Your task to perform on an android device: Open Yahoo.com Image 0: 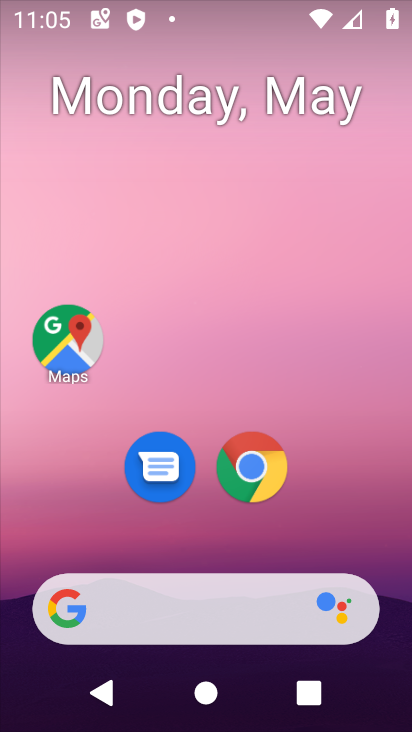
Step 0: click (253, 458)
Your task to perform on an android device: Open Yahoo.com Image 1: 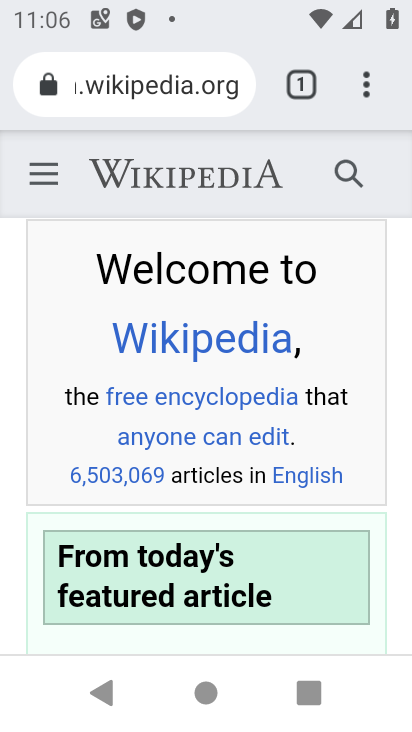
Step 1: click (183, 86)
Your task to perform on an android device: Open Yahoo.com Image 2: 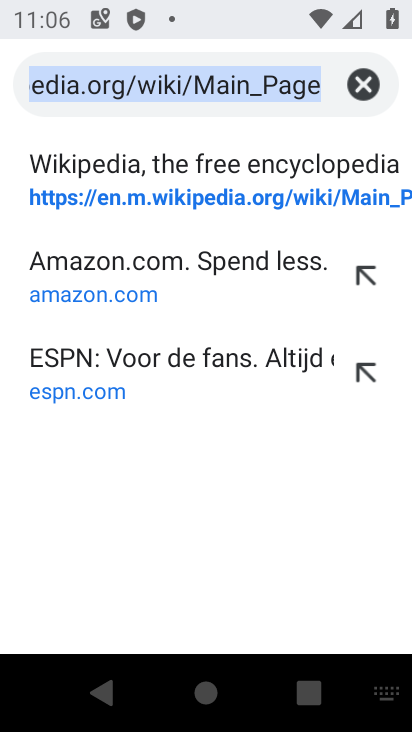
Step 2: type "yahoo.com"
Your task to perform on an android device: Open Yahoo.com Image 3: 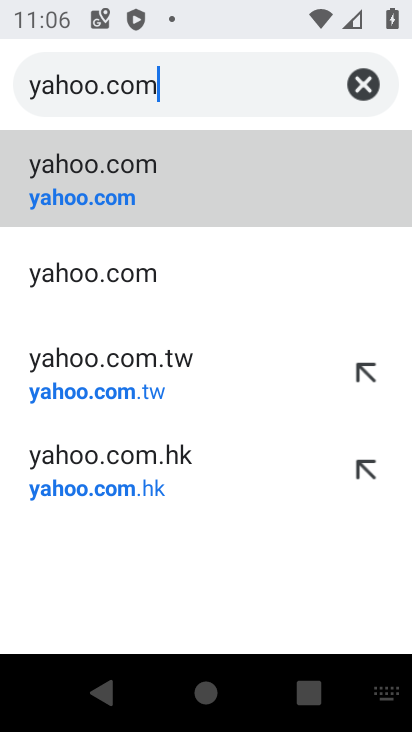
Step 3: click (69, 175)
Your task to perform on an android device: Open Yahoo.com Image 4: 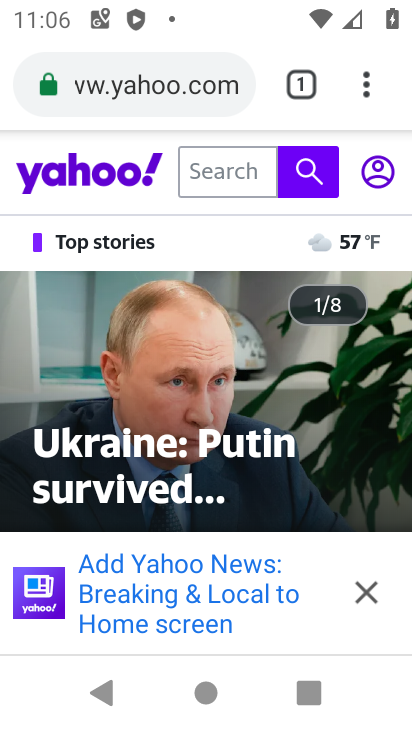
Step 4: task complete